Your task to perform on an android device: What's on my calendar tomorrow? Image 0: 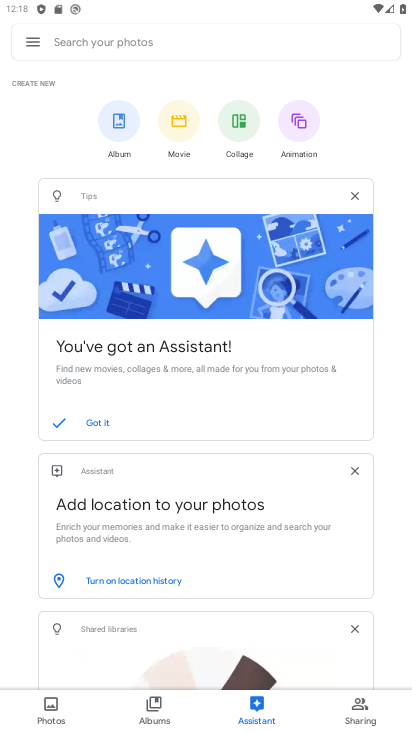
Step 0: press home button
Your task to perform on an android device: What's on my calendar tomorrow? Image 1: 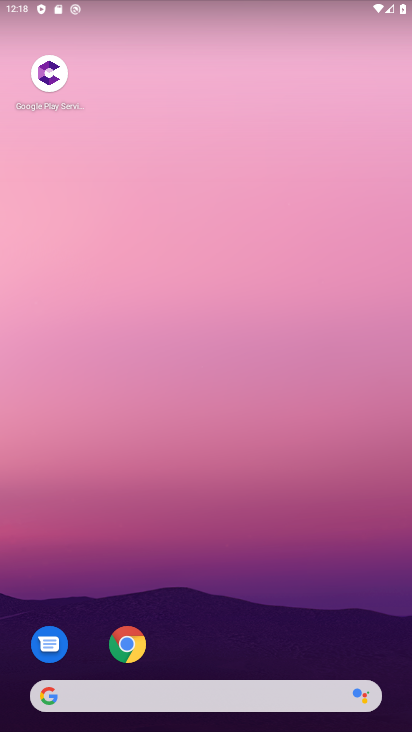
Step 1: drag from (213, 690) to (240, 271)
Your task to perform on an android device: What's on my calendar tomorrow? Image 2: 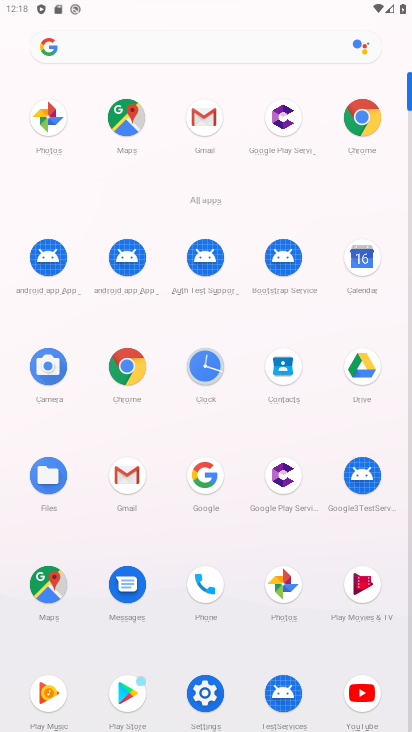
Step 2: click (350, 283)
Your task to perform on an android device: What's on my calendar tomorrow? Image 3: 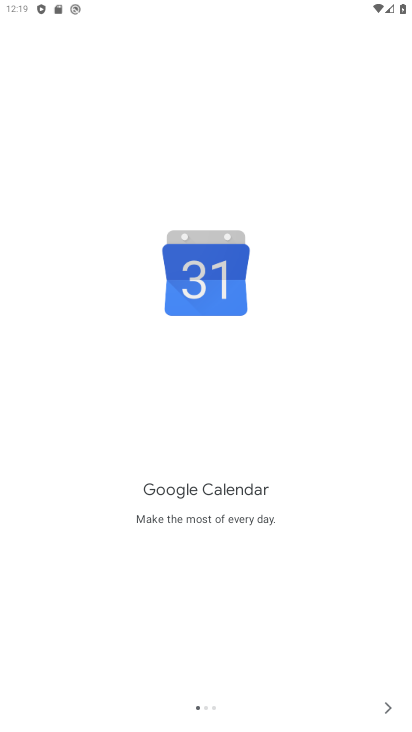
Step 3: click (386, 709)
Your task to perform on an android device: What's on my calendar tomorrow? Image 4: 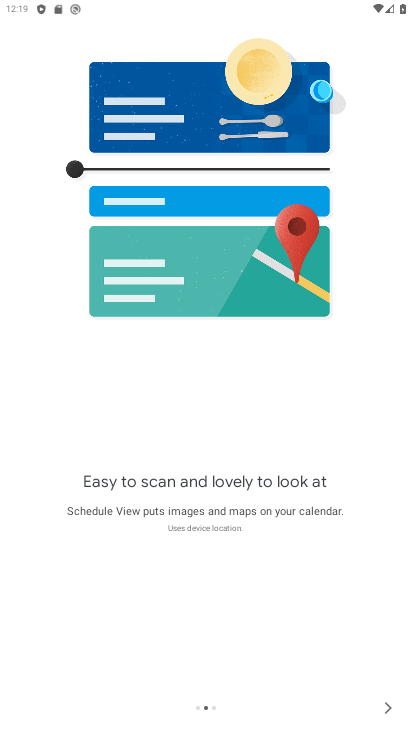
Step 4: click (390, 702)
Your task to perform on an android device: What's on my calendar tomorrow? Image 5: 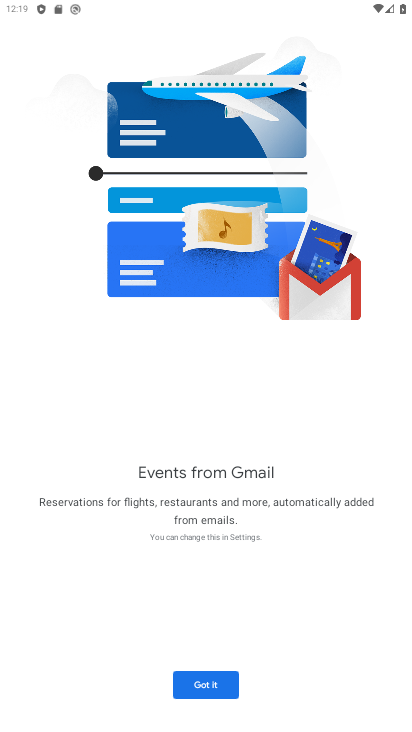
Step 5: click (225, 690)
Your task to perform on an android device: What's on my calendar tomorrow? Image 6: 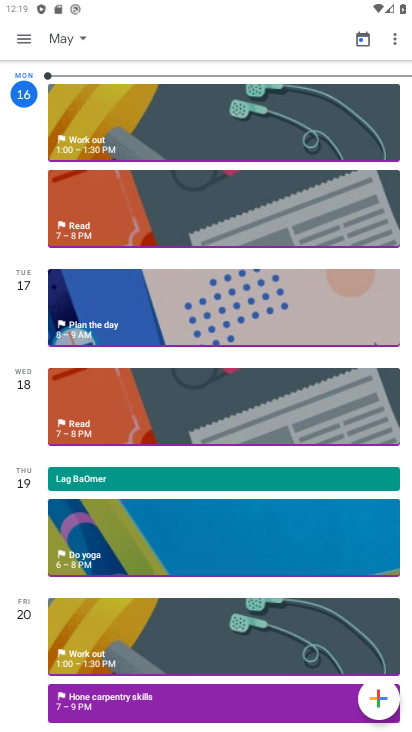
Step 6: task complete